Your task to perform on an android device: turn on airplane mode Image 0: 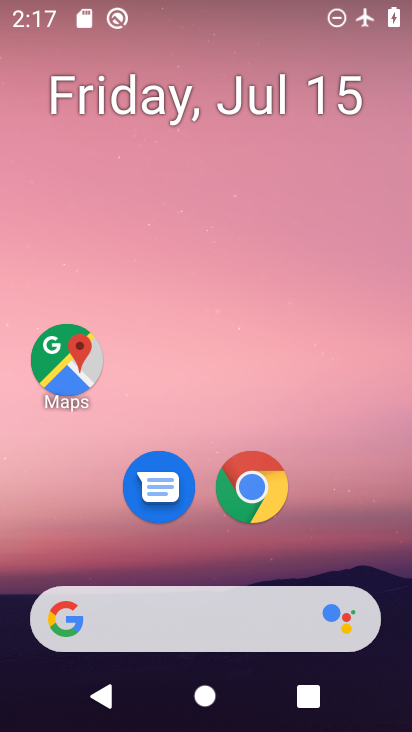
Step 0: drag from (161, 543) to (234, 323)
Your task to perform on an android device: turn on airplane mode Image 1: 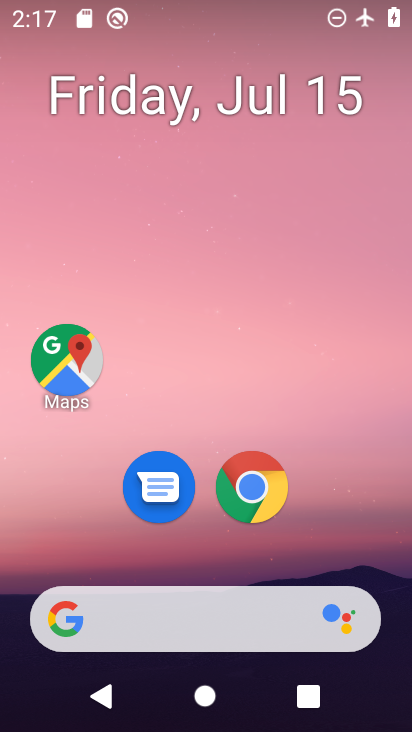
Step 1: drag from (155, 523) to (183, 21)
Your task to perform on an android device: turn on airplane mode Image 2: 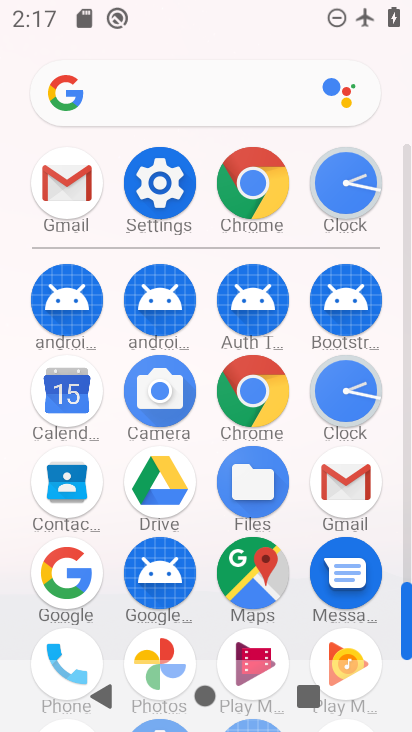
Step 2: click (173, 220)
Your task to perform on an android device: turn on airplane mode Image 3: 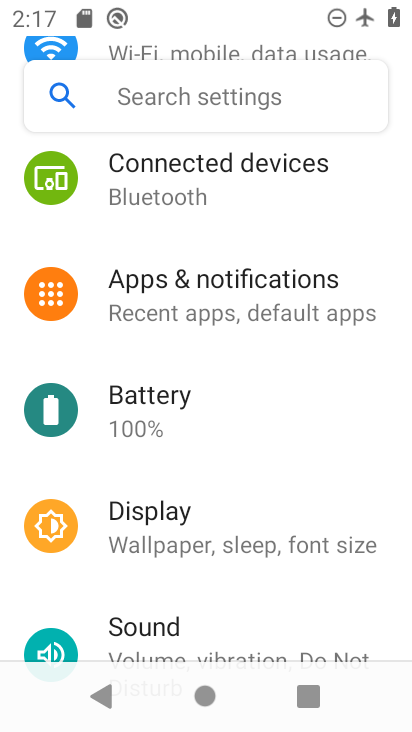
Step 3: drag from (162, 263) to (129, 474)
Your task to perform on an android device: turn on airplane mode Image 4: 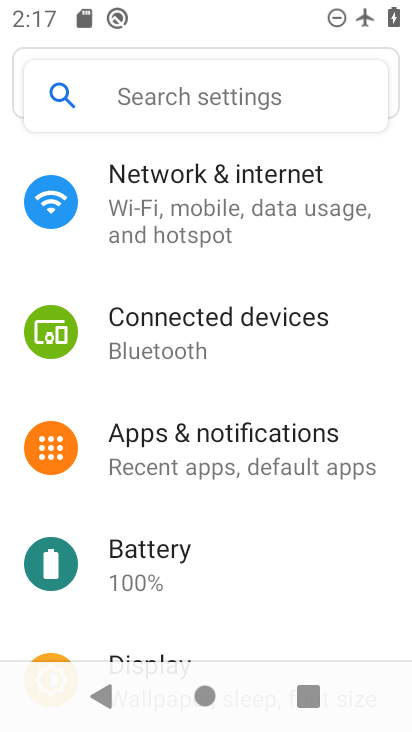
Step 4: click (215, 219)
Your task to perform on an android device: turn on airplane mode Image 5: 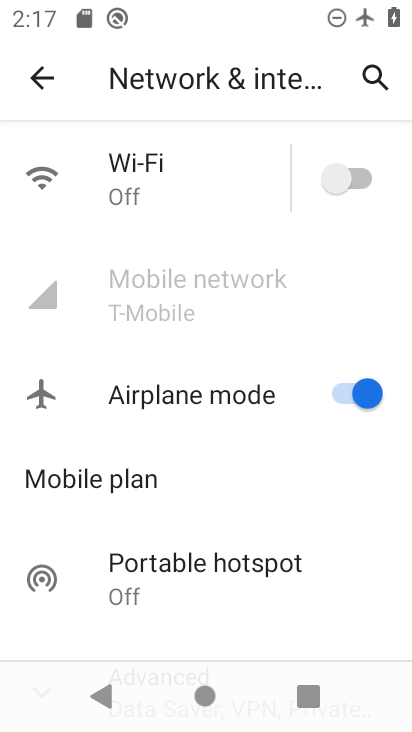
Step 5: task complete